Your task to perform on an android device: move an email to a new category in the gmail app Image 0: 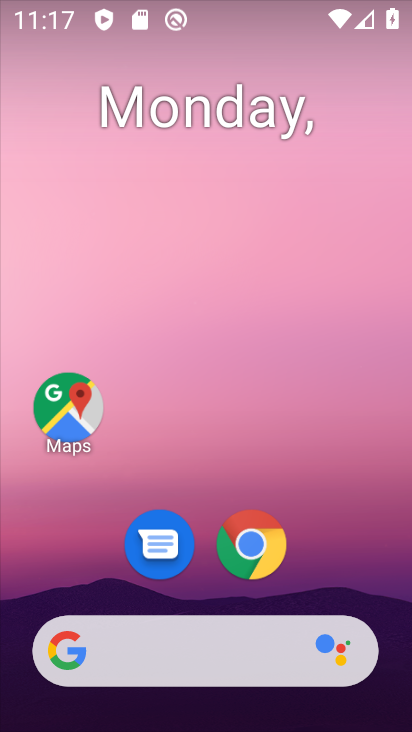
Step 0: drag from (345, 578) to (346, 77)
Your task to perform on an android device: move an email to a new category in the gmail app Image 1: 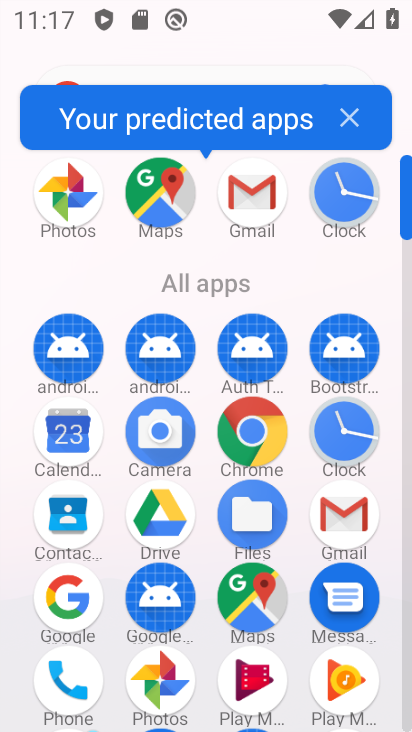
Step 1: click (327, 500)
Your task to perform on an android device: move an email to a new category in the gmail app Image 2: 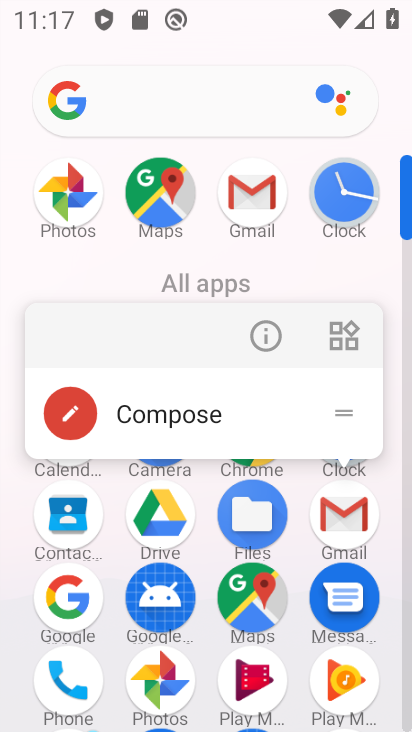
Step 2: click (349, 520)
Your task to perform on an android device: move an email to a new category in the gmail app Image 3: 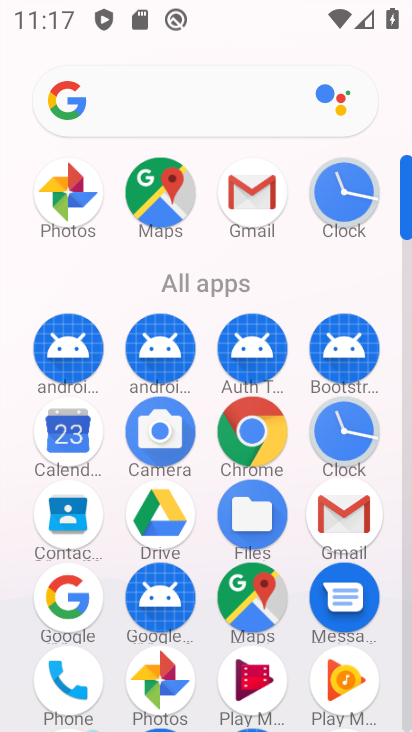
Step 3: click (349, 520)
Your task to perform on an android device: move an email to a new category in the gmail app Image 4: 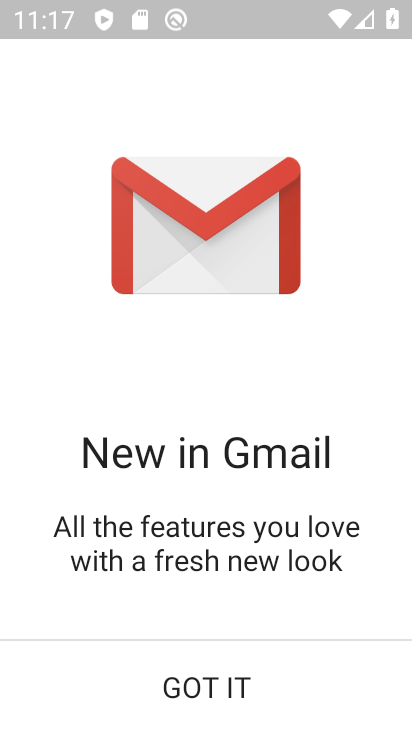
Step 4: click (189, 694)
Your task to perform on an android device: move an email to a new category in the gmail app Image 5: 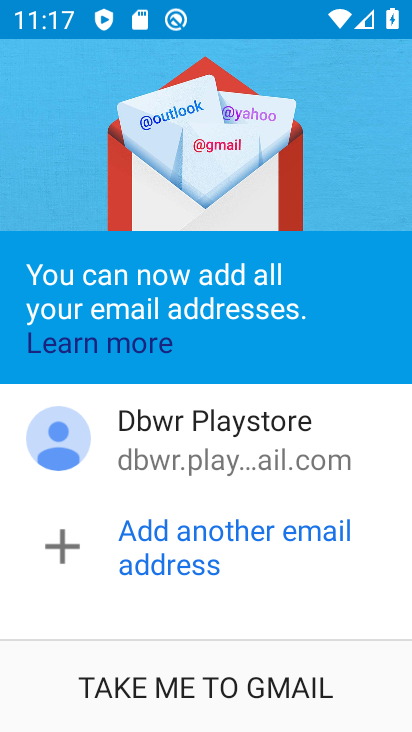
Step 5: click (210, 675)
Your task to perform on an android device: move an email to a new category in the gmail app Image 6: 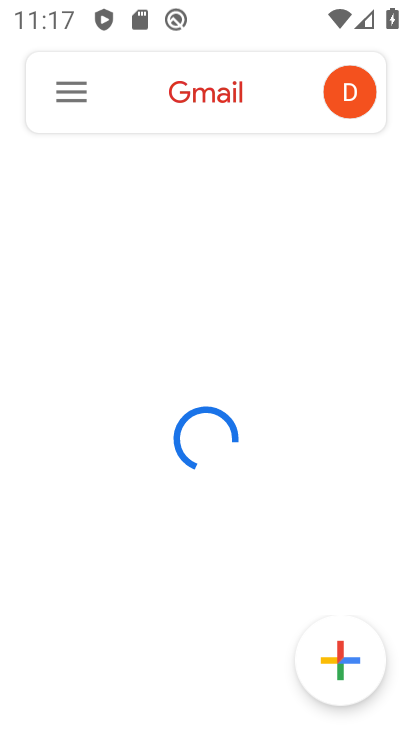
Step 6: drag from (227, 92) to (227, 727)
Your task to perform on an android device: move an email to a new category in the gmail app Image 7: 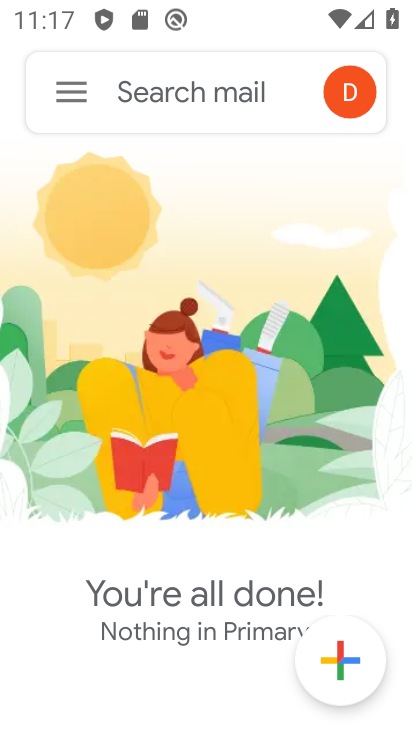
Step 7: click (64, 83)
Your task to perform on an android device: move an email to a new category in the gmail app Image 8: 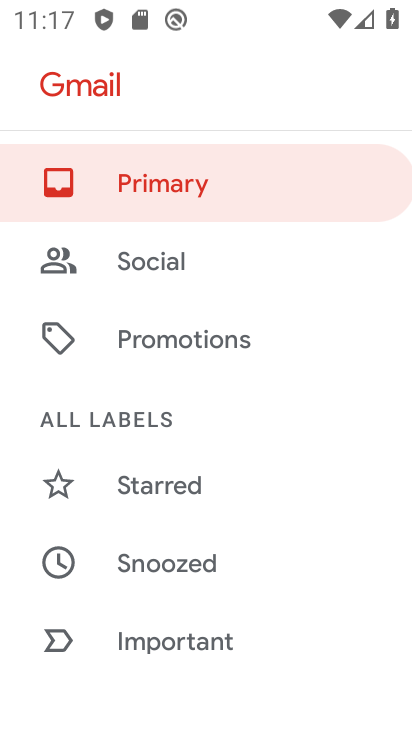
Step 8: drag from (289, 662) to (208, 5)
Your task to perform on an android device: move an email to a new category in the gmail app Image 9: 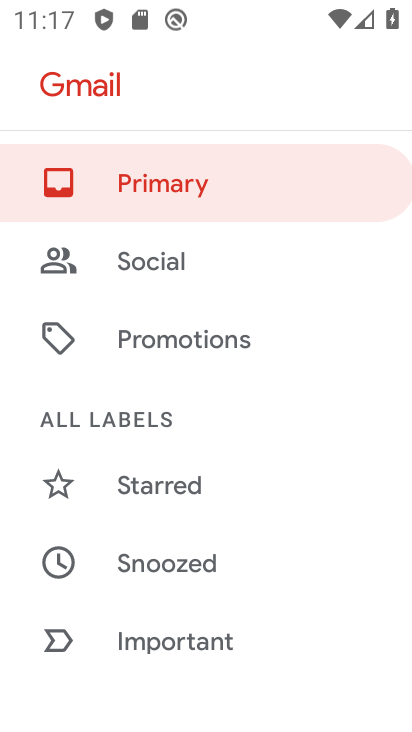
Step 9: drag from (293, 668) to (320, 145)
Your task to perform on an android device: move an email to a new category in the gmail app Image 10: 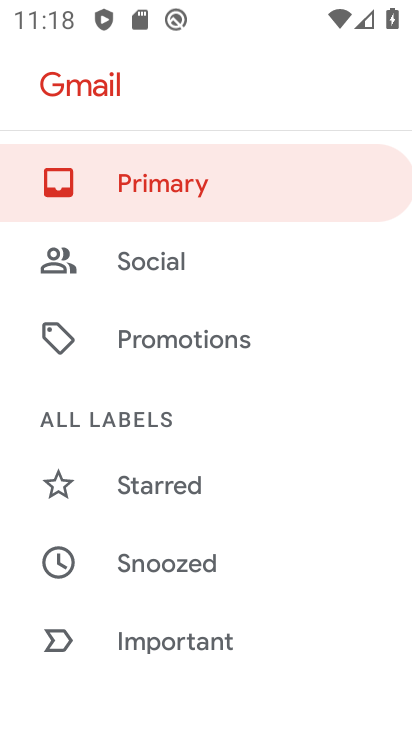
Step 10: drag from (204, 619) to (296, 45)
Your task to perform on an android device: move an email to a new category in the gmail app Image 11: 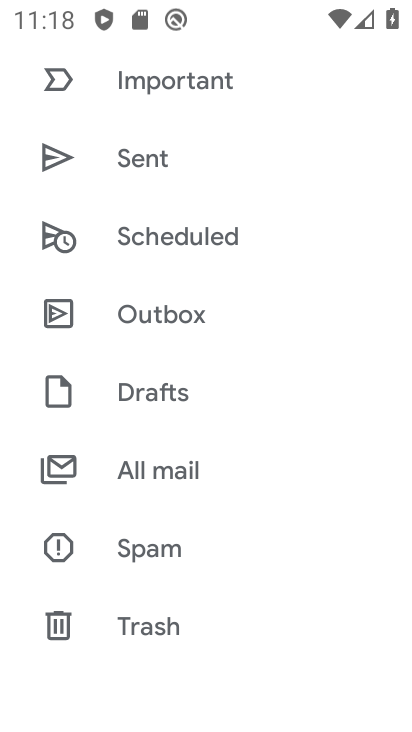
Step 11: click (219, 647)
Your task to perform on an android device: move an email to a new category in the gmail app Image 12: 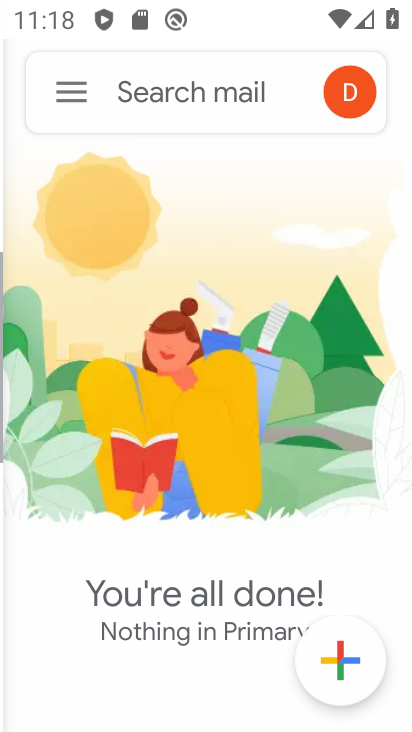
Step 12: click (237, 468)
Your task to perform on an android device: move an email to a new category in the gmail app Image 13: 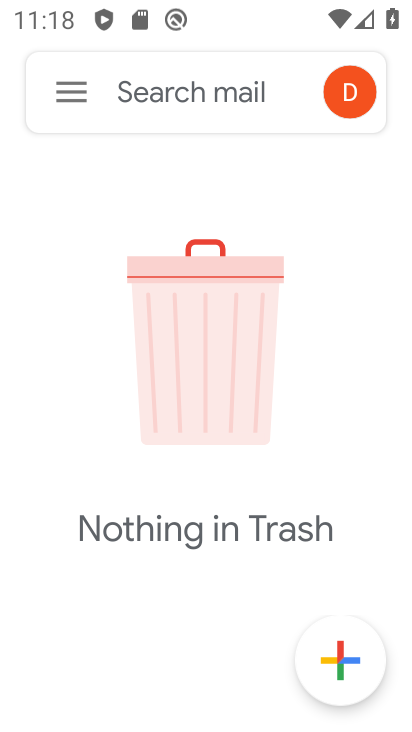
Step 13: task complete